Your task to perform on an android device: What's on my calendar today? Image 0: 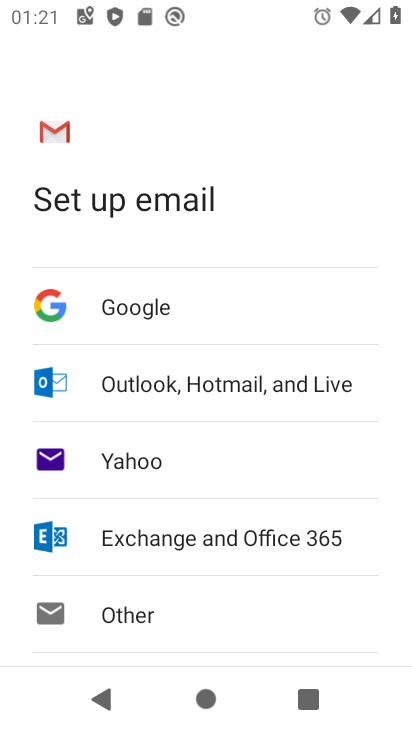
Step 0: press home button
Your task to perform on an android device: What's on my calendar today? Image 1: 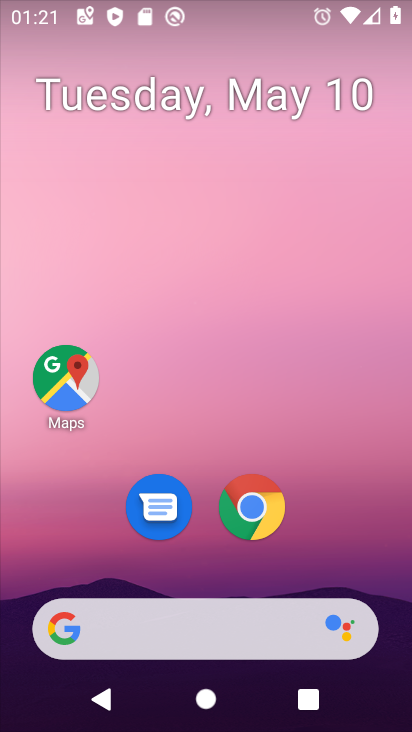
Step 1: drag from (203, 605) to (162, 220)
Your task to perform on an android device: What's on my calendar today? Image 2: 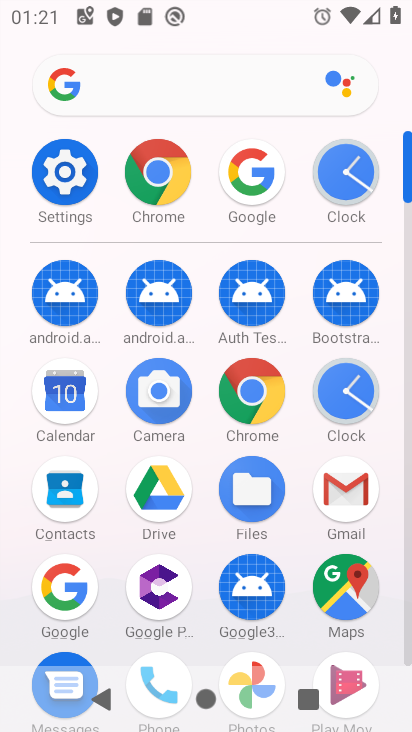
Step 2: click (59, 397)
Your task to perform on an android device: What's on my calendar today? Image 3: 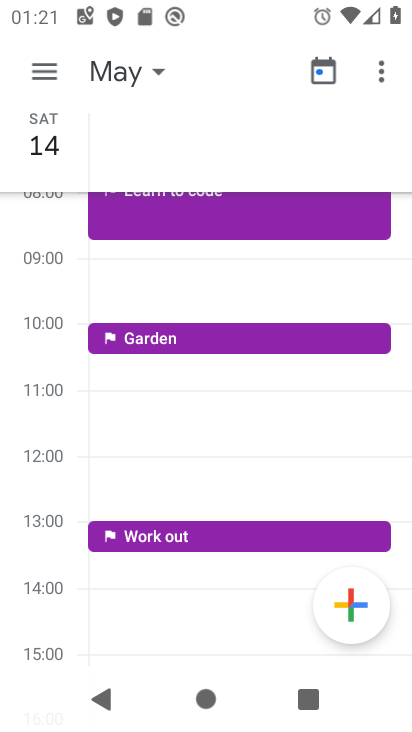
Step 3: click (151, 67)
Your task to perform on an android device: What's on my calendar today? Image 4: 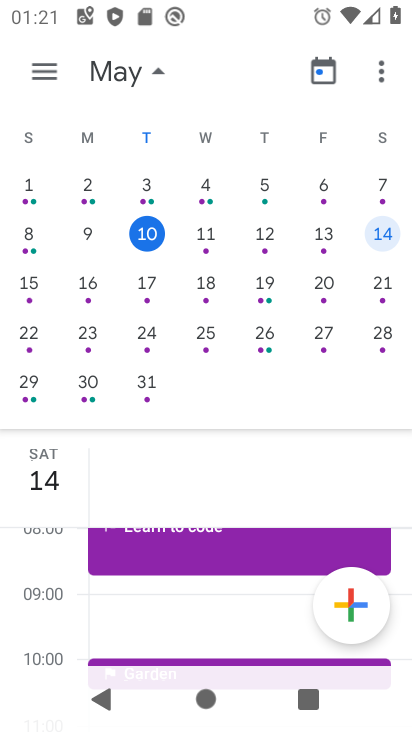
Step 4: click (136, 236)
Your task to perform on an android device: What's on my calendar today? Image 5: 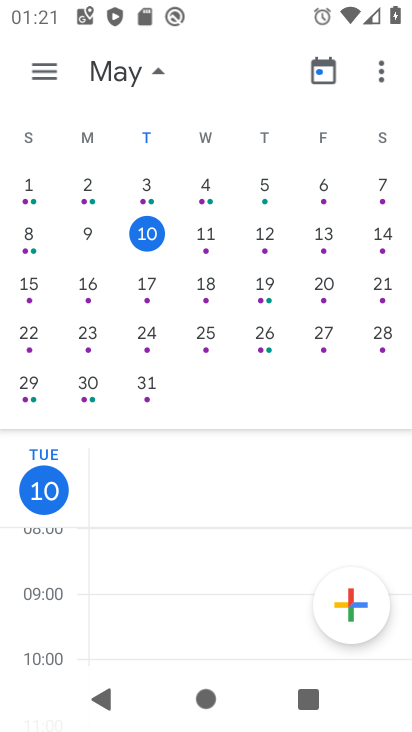
Step 5: task complete